Your task to perform on an android device: set an alarm Image 0: 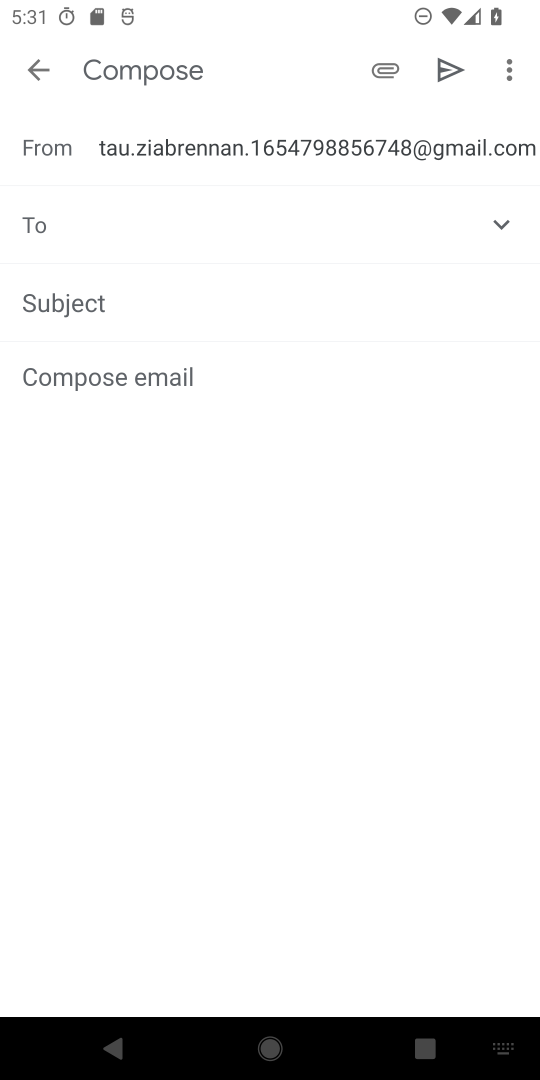
Step 0: press home button
Your task to perform on an android device: set an alarm Image 1: 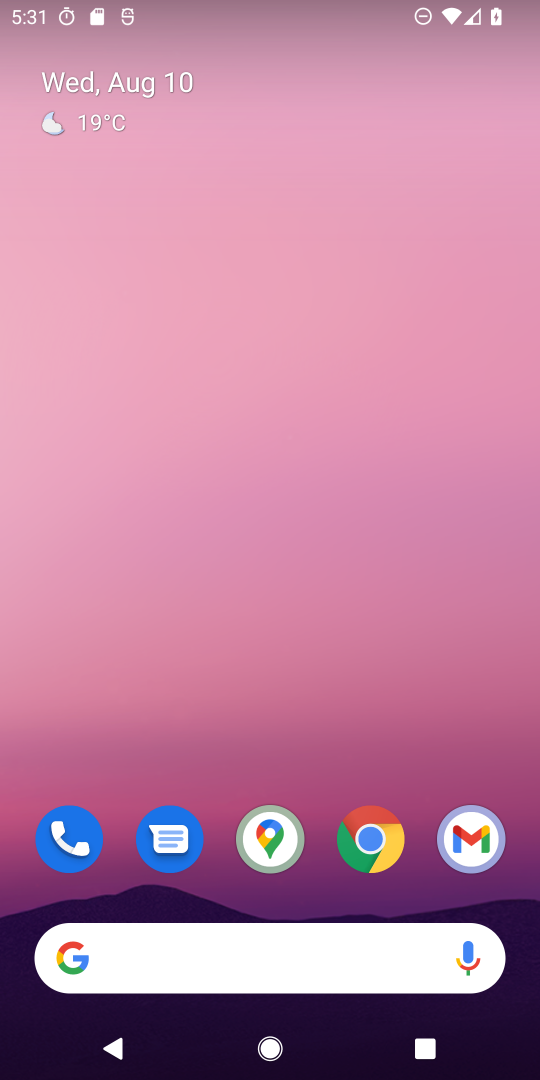
Step 1: task complete